Your task to perform on an android device: stop showing notifications on the lock screen Image 0: 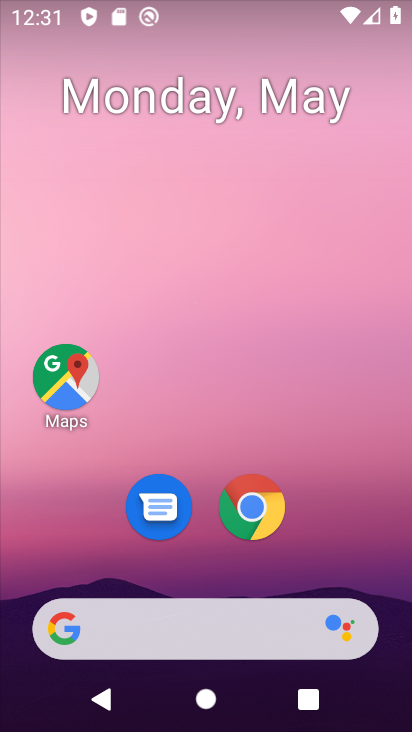
Step 0: drag from (232, 719) to (233, 191)
Your task to perform on an android device: stop showing notifications on the lock screen Image 1: 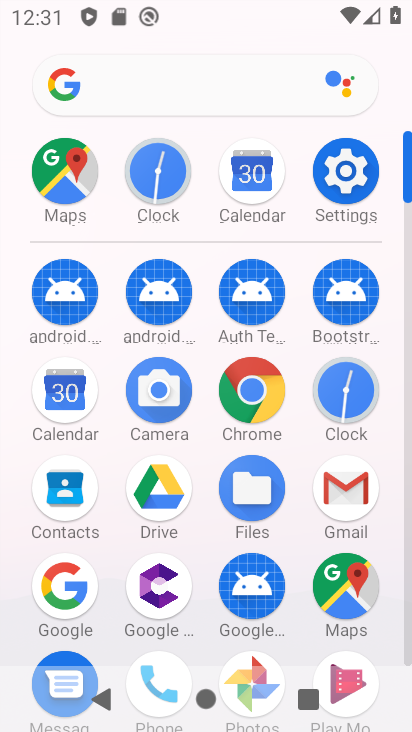
Step 1: click (358, 178)
Your task to perform on an android device: stop showing notifications on the lock screen Image 2: 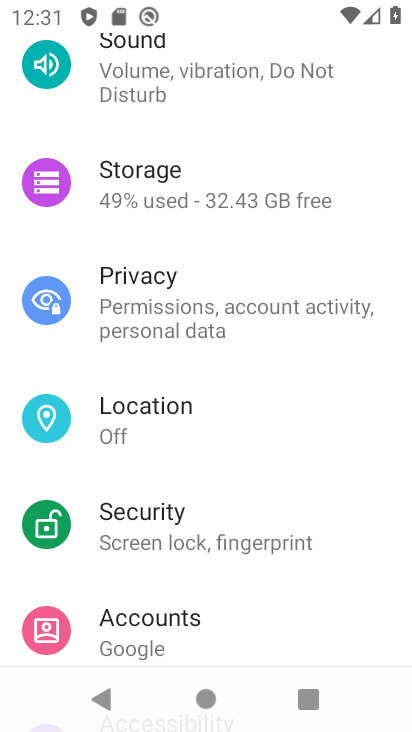
Step 2: drag from (245, 170) to (253, 573)
Your task to perform on an android device: stop showing notifications on the lock screen Image 3: 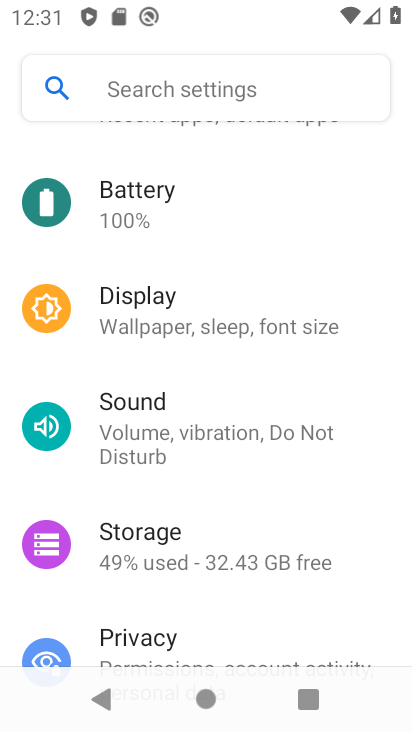
Step 3: drag from (236, 163) to (256, 510)
Your task to perform on an android device: stop showing notifications on the lock screen Image 4: 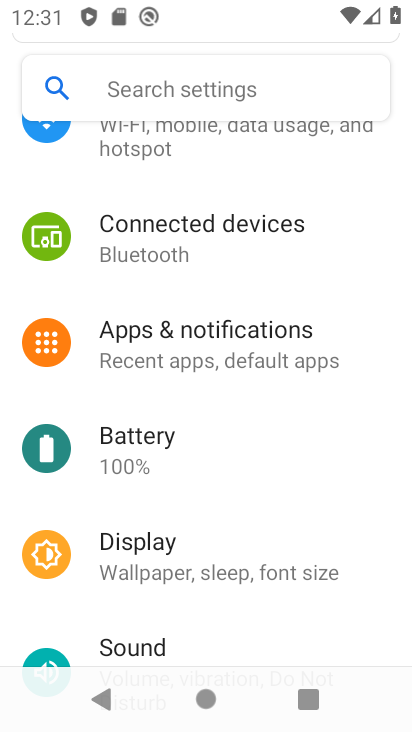
Step 4: click (232, 345)
Your task to perform on an android device: stop showing notifications on the lock screen Image 5: 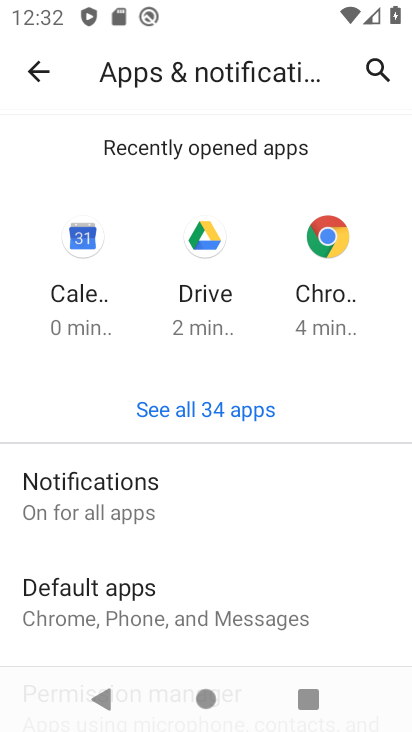
Step 5: click (80, 519)
Your task to perform on an android device: stop showing notifications on the lock screen Image 6: 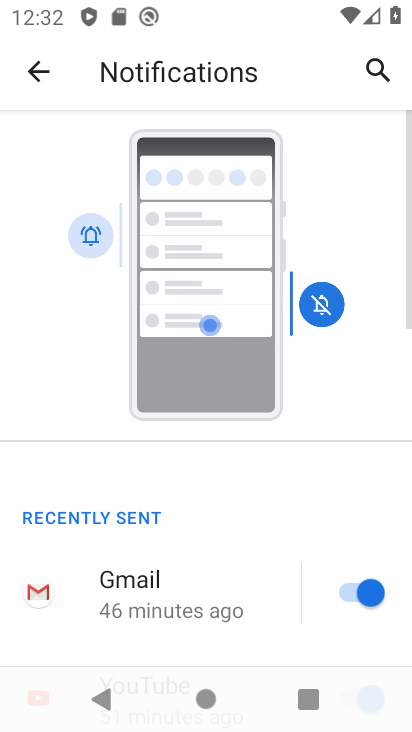
Step 6: task complete